Your task to perform on an android device: turn vacation reply on in the gmail app Image 0: 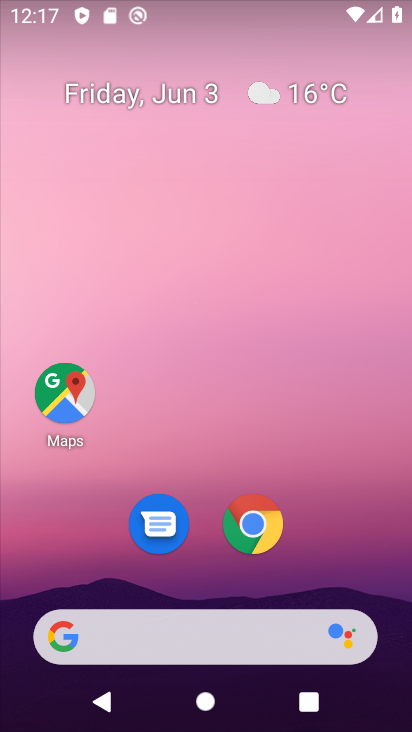
Step 0: drag from (231, 435) to (213, 18)
Your task to perform on an android device: turn vacation reply on in the gmail app Image 1: 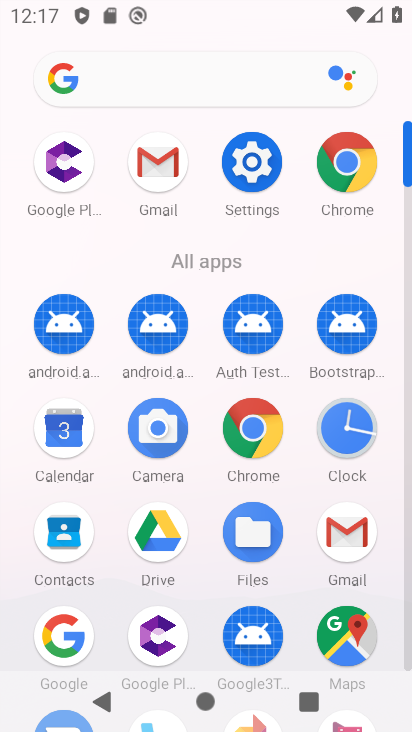
Step 1: click (159, 159)
Your task to perform on an android device: turn vacation reply on in the gmail app Image 2: 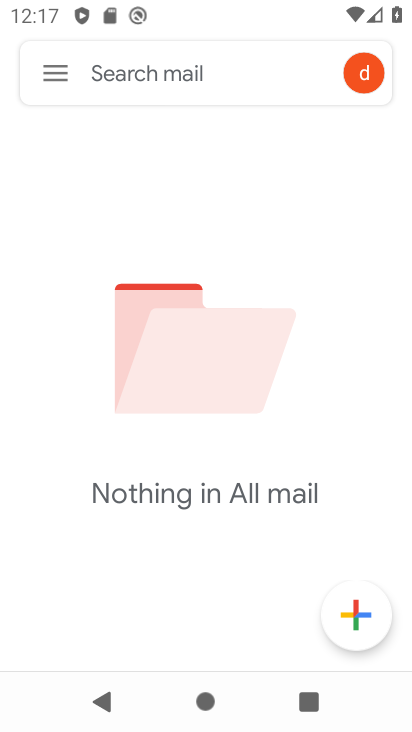
Step 2: click (51, 76)
Your task to perform on an android device: turn vacation reply on in the gmail app Image 3: 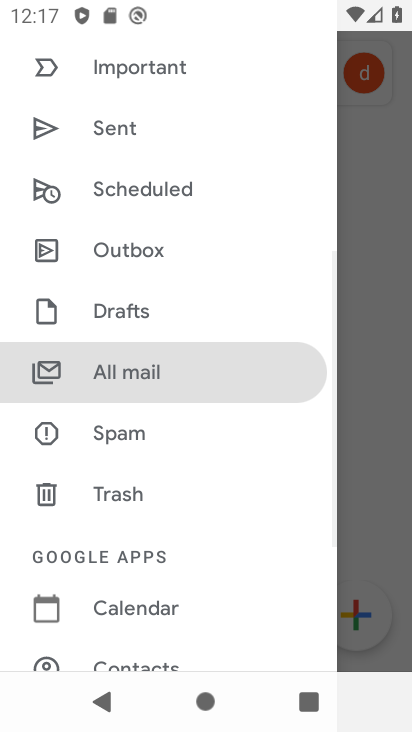
Step 3: drag from (151, 523) to (176, 212)
Your task to perform on an android device: turn vacation reply on in the gmail app Image 4: 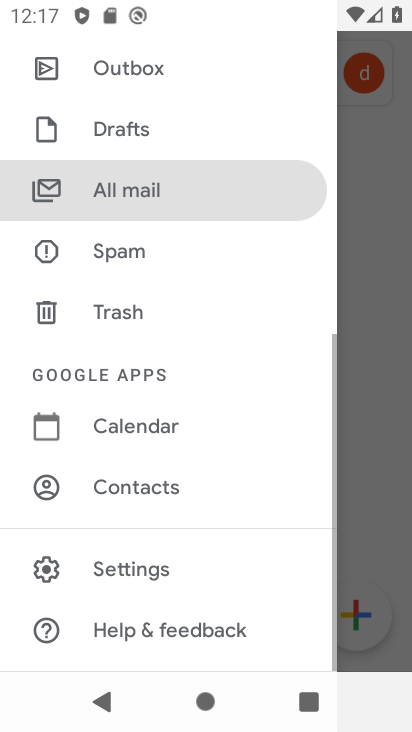
Step 4: click (157, 568)
Your task to perform on an android device: turn vacation reply on in the gmail app Image 5: 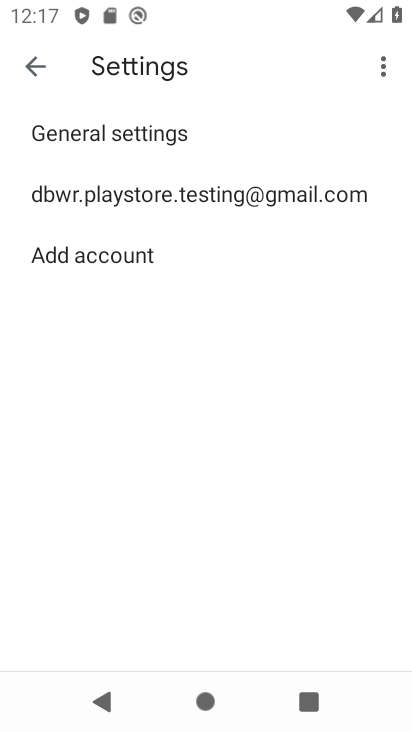
Step 5: click (245, 189)
Your task to perform on an android device: turn vacation reply on in the gmail app Image 6: 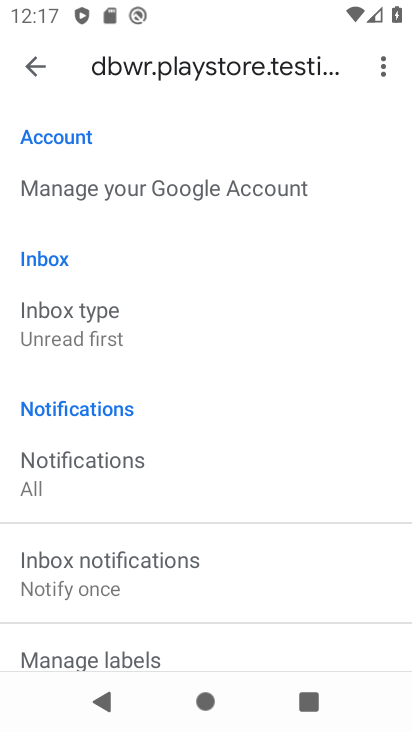
Step 6: drag from (195, 581) to (217, 4)
Your task to perform on an android device: turn vacation reply on in the gmail app Image 7: 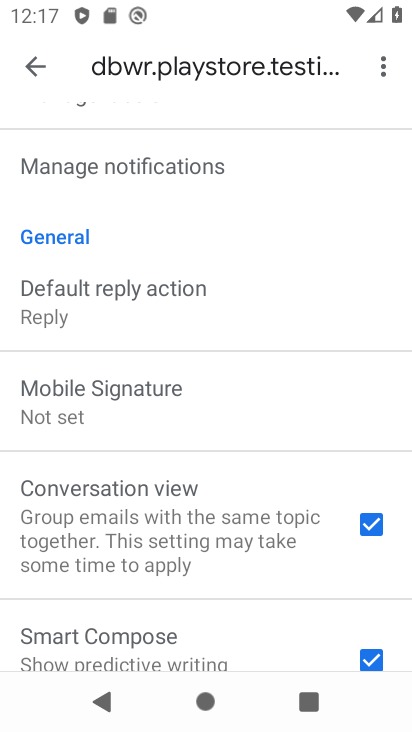
Step 7: drag from (210, 594) to (217, 38)
Your task to perform on an android device: turn vacation reply on in the gmail app Image 8: 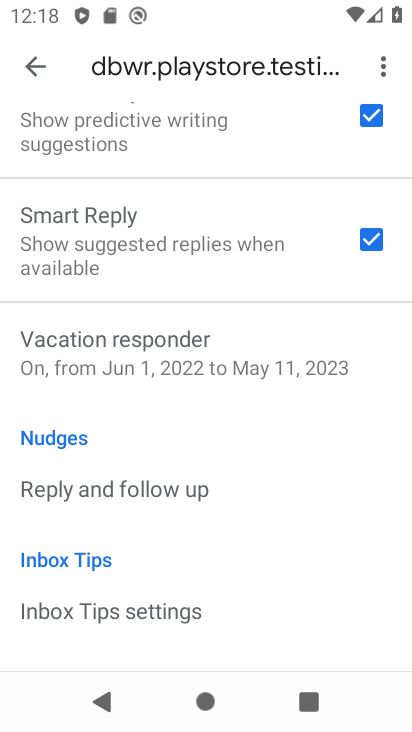
Step 8: click (200, 343)
Your task to perform on an android device: turn vacation reply on in the gmail app Image 9: 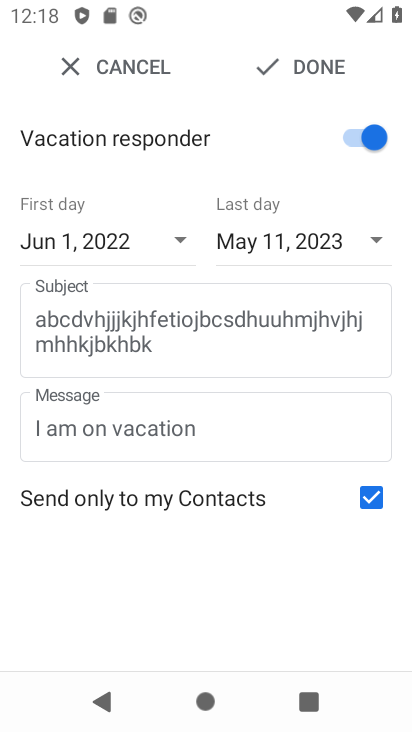
Step 9: task complete